Your task to perform on an android device: Search for Italian restaurants on Maps Image 0: 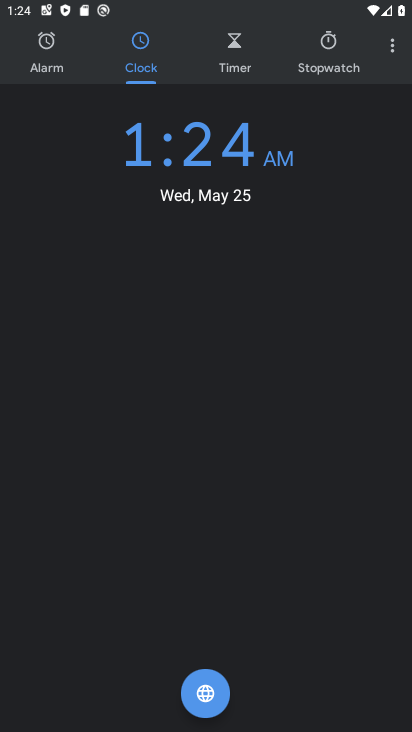
Step 0: press home button
Your task to perform on an android device: Search for Italian restaurants on Maps Image 1: 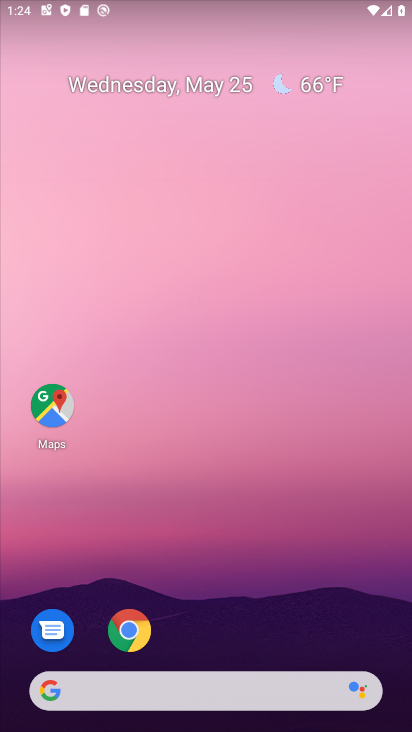
Step 1: drag from (214, 651) to (206, 113)
Your task to perform on an android device: Search for Italian restaurants on Maps Image 2: 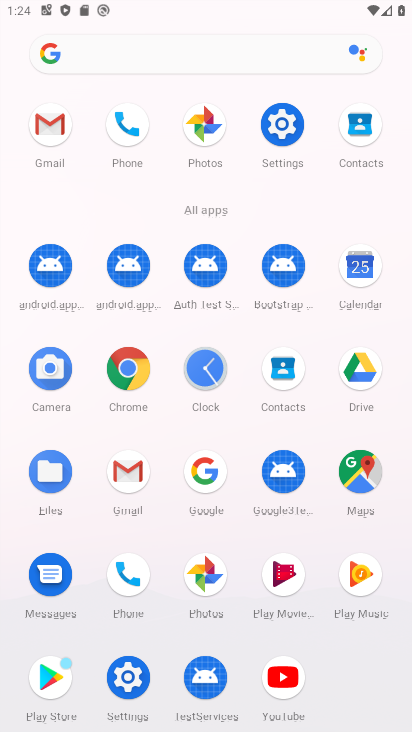
Step 2: click (350, 464)
Your task to perform on an android device: Search for Italian restaurants on Maps Image 3: 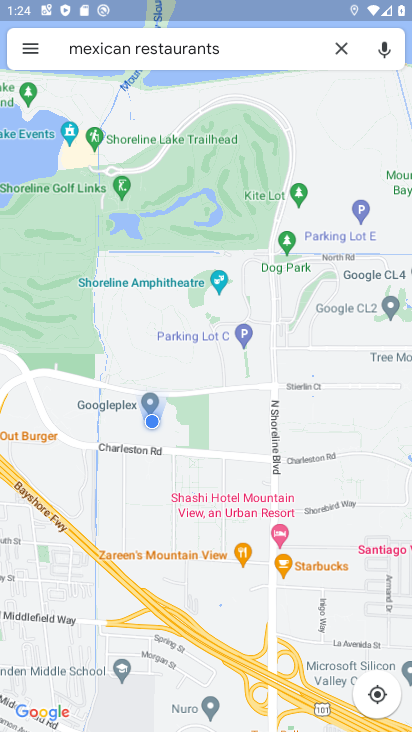
Step 3: click (342, 45)
Your task to perform on an android device: Search for Italian restaurants on Maps Image 4: 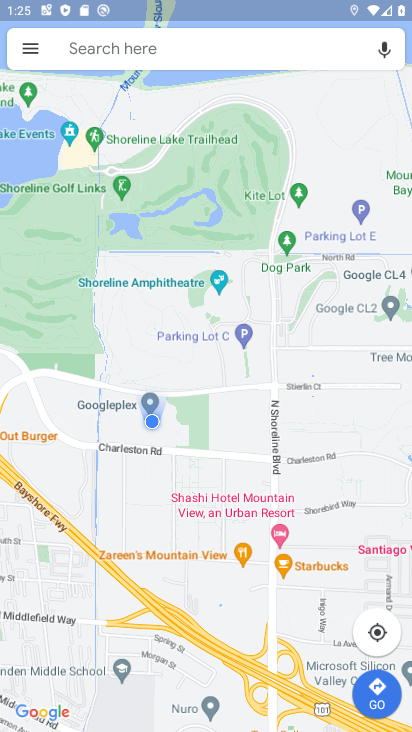
Step 4: click (114, 47)
Your task to perform on an android device: Search for Italian restaurants on Maps Image 5: 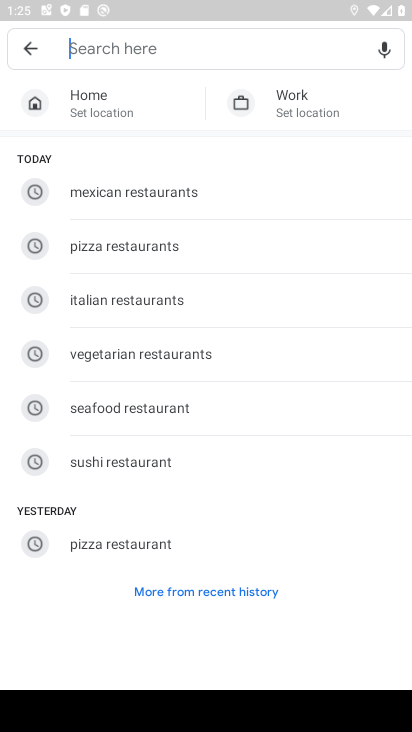
Step 5: click (95, 305)
Your task to perform on an android device: Search for Italian restaurants on Maps Image 6: 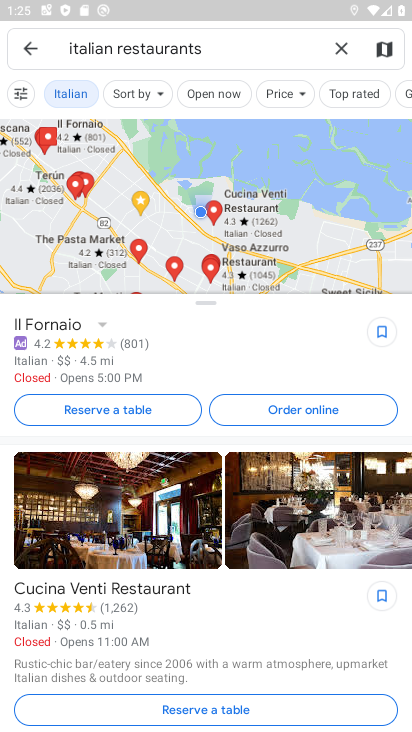
Step 6: task complete